Your task to perform on an android device: Search for Mexican restaurants on Maps Image 0: 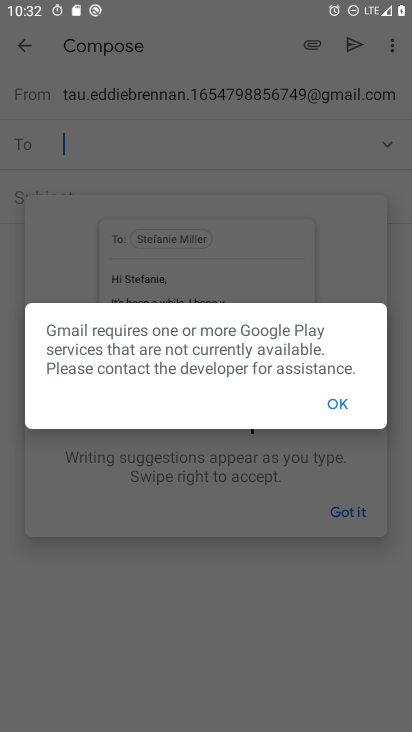
Step 0: press home button
Your task to perform on an android device: Search for Mexican restaurants on Maps Image 1: 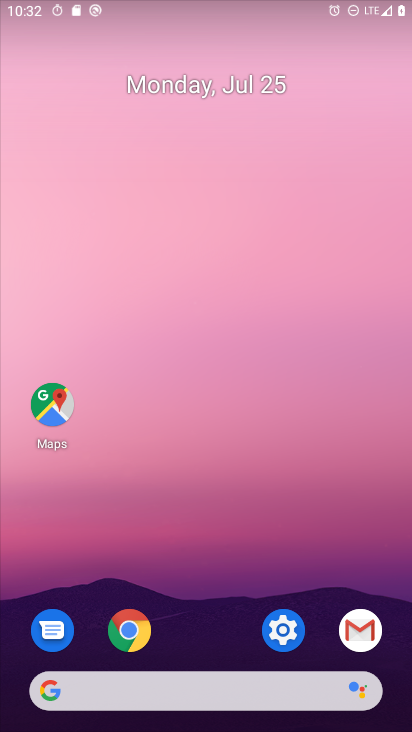
Step 1: click (53, 392)
Your task to perform on an android device: Search for Mexican restaurants on Maps Image 2: 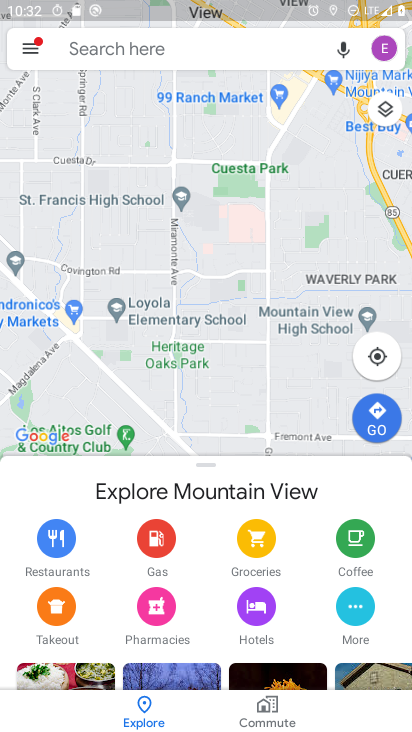
Step 2: click (126, 54)
Your task to perform on an android device: Search for Mexican restaurants on Maps Image 3: 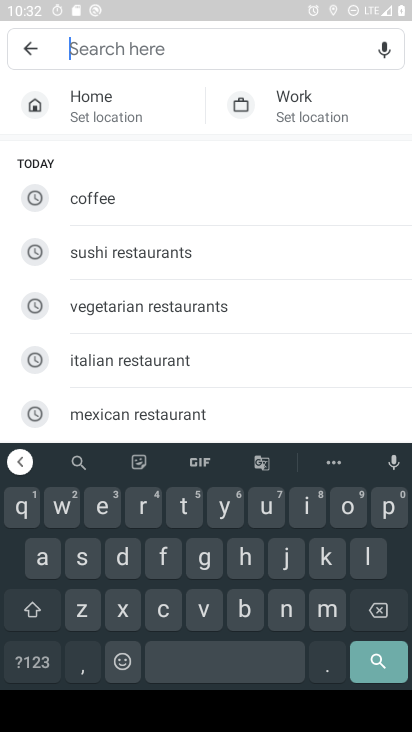
Step 3: click (137, 407)
Your task to perform on an android device: Search for Mexican restaurants on Maps Image 4: 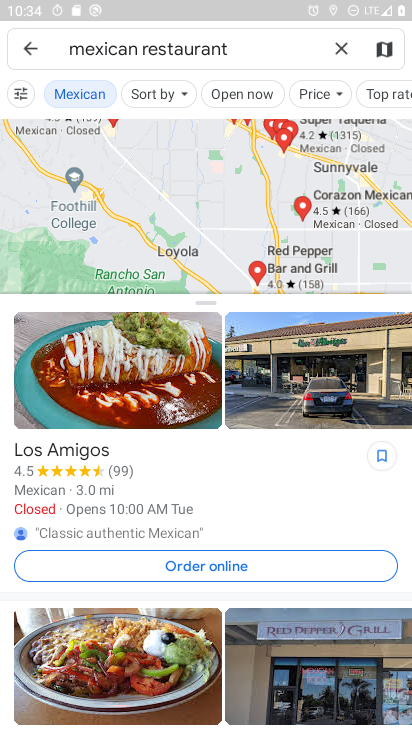
Step 4: task complete